Your task to perform on an android device: open app "Google Translate" Image 0: 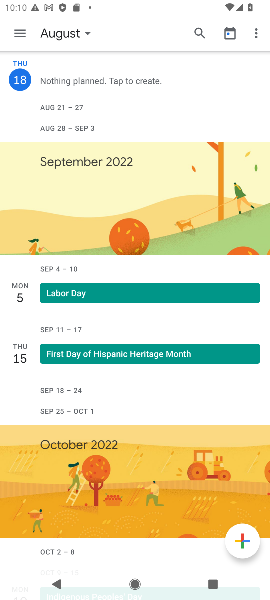
Step 0: press home button
Your task to perform on an android device: open app "Google Translate" Image 1: 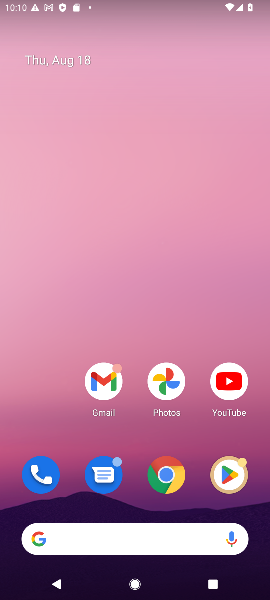
Step 1: drag from (137, 535) to (230, 475)
Your task to perform on an android device: open app "Google Translate" Image 2: 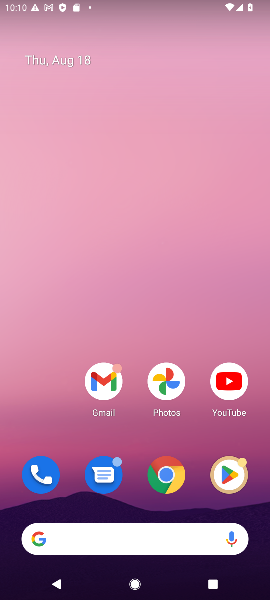
Step 2: drag from (142, 509) to (66, 117)
Your task to perform on an android device: open app "Google Translate" Image 3: 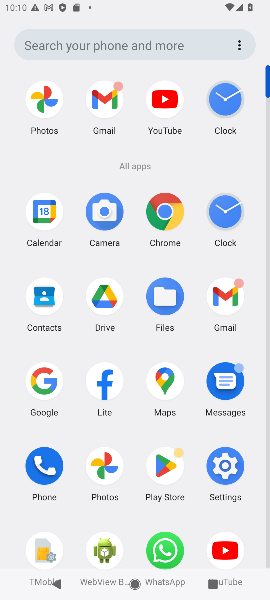
Step 3: click (149, 469)
Your task to perform on an android device: open app "Google Translate" Image 4: 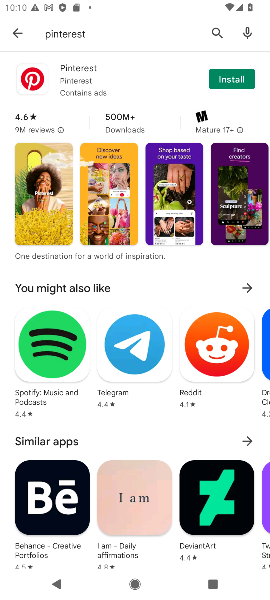
Step 4: click (13, 38)
Your task to perform on an android device: open app "Google Translate" Image 5: 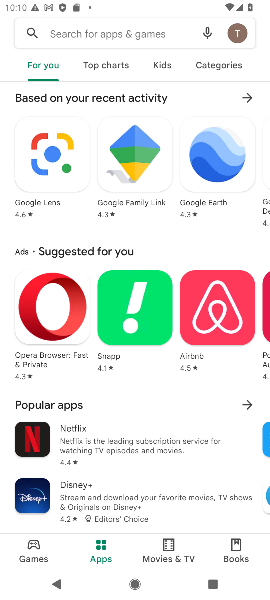
Step 5: click (71, 35)
Your task to perform on an android device: open app "Google Translate" Image 6: 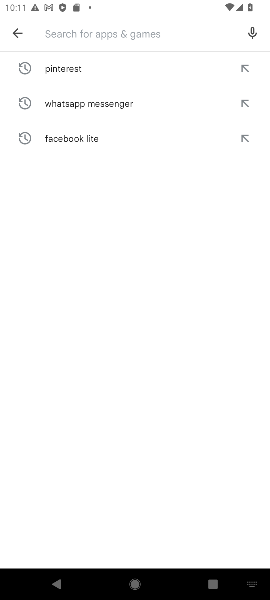
Step 6: type "Google Translate"
Your task to perform on an android device: open app "Google Translate" Image 7: 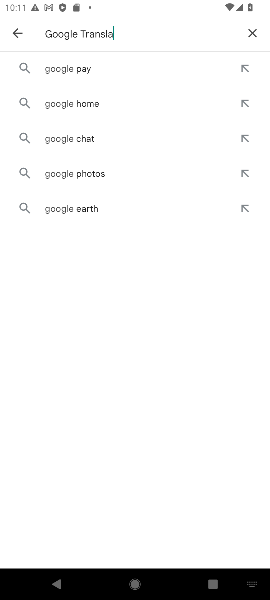
Step 7: type ""
Your task to perform on an android device: open app "Google Translate" Image 8: 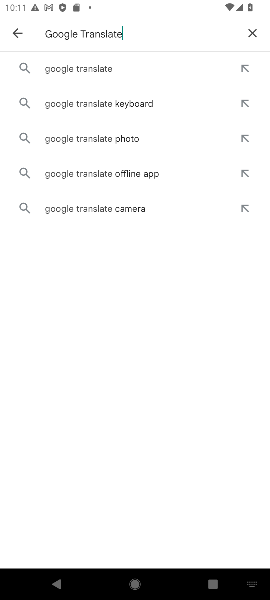
Step 8: click (55, 73)
Your task to perform on an android device: open app "Google Translate" Image 9: 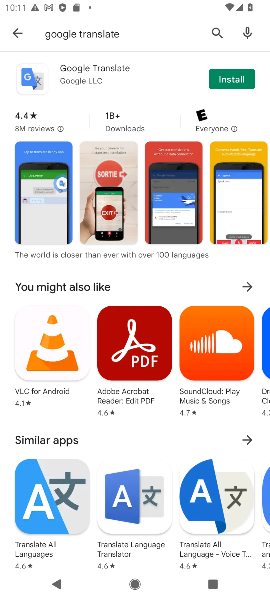
Step 9: click (80, 90)
Your task to perform on an android device: open app "Google Translate" Image 10: 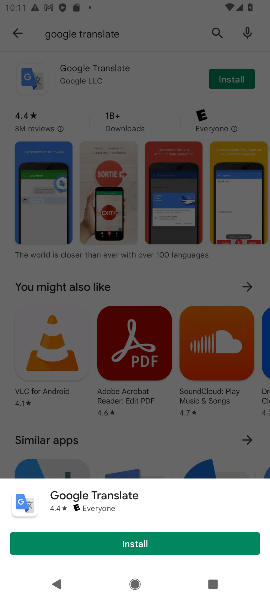
Step 10: task complete